Your task to perform on an android device: Open Google Chrome and open the bookmarks view Image 0: 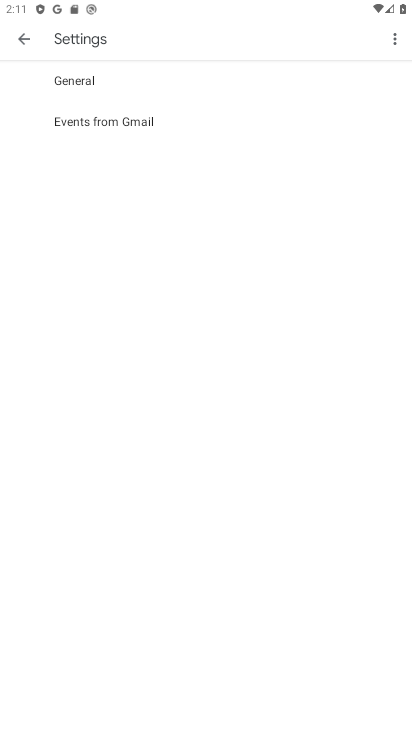
Step 0: press back button
Your task to perform on an android device: Open Google Chrome and open the bookmarks view Image 1: 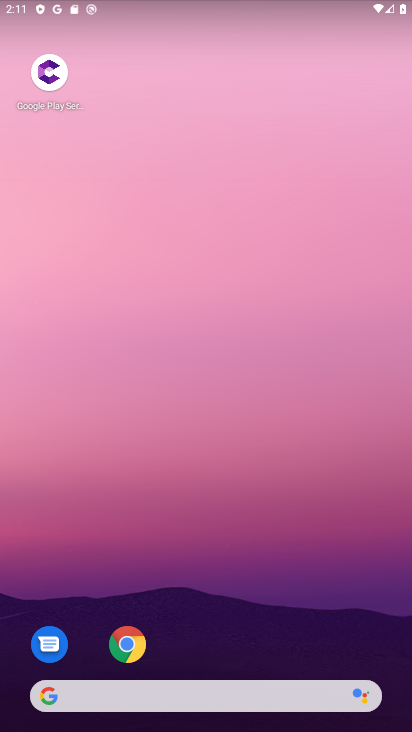
Step 1: click (125, 646)
Your task to perform on an android device: Open Google Chrome and open the bookmarks view Image 2: 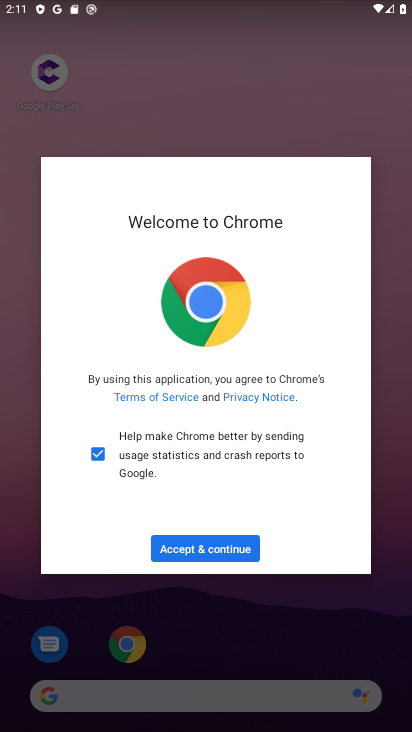
Step 2: click (199, 546)
Your task to perform on an android device: Open Google Chrome and open the bookmarks view Image 3: 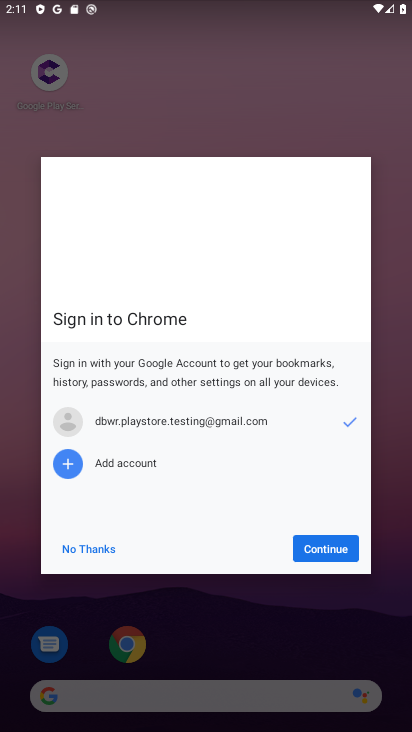
Step 3: click (319, 547)
Your task to perform on an android device: Open Google Chrome and open the bookmarks view Image 4: 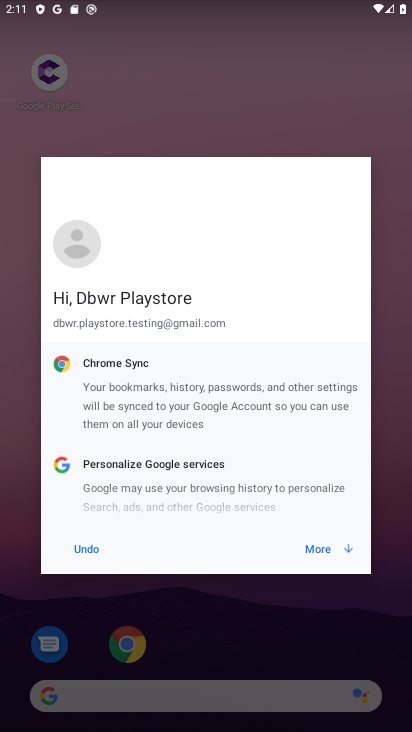
Step 4: click (315, 551)
Your task to perform on an android device: Open Google Chrome and open the bookmarks view Image 5: 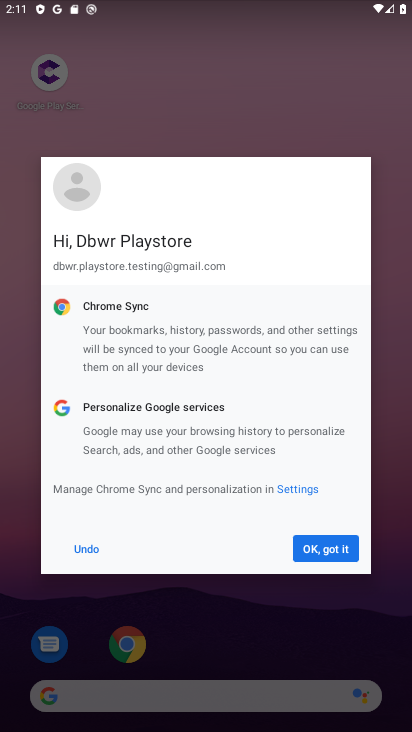
Step 5: click (315, 551)
Your task to perform on an android device: Open Google Chrome and open the bookmarks view Image 6: 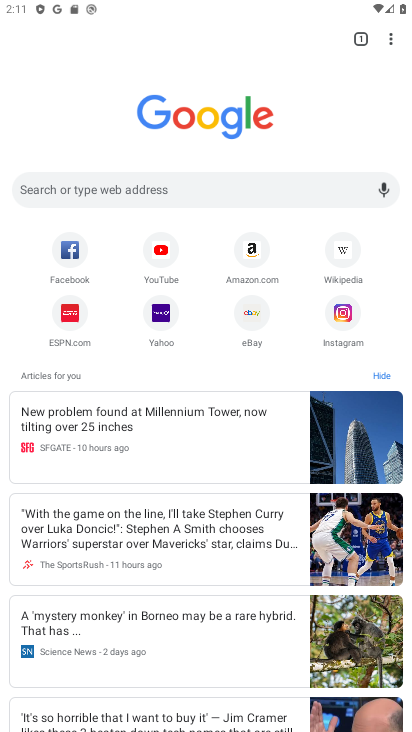
Step 6: click (391, 40)
Your task to perform on an android device: Open Google Chrome and open the bookmarks view Image 7: 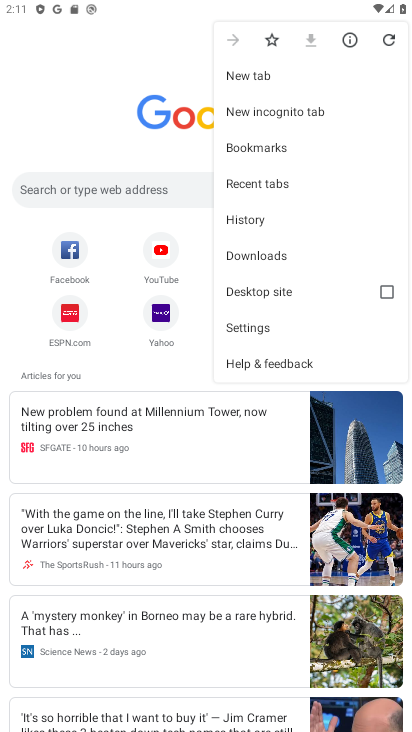
Step 7: click (270, 149)
Your task to perform on an android device: Open Google Chrome and open the bookmarks view Image 8: 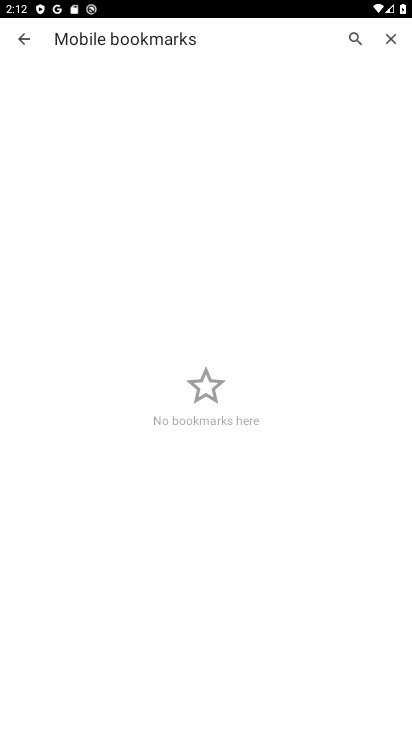
Step 8: task complete